Your task to perform on an android device: toggle notifications settings in the gmail app Image 0: 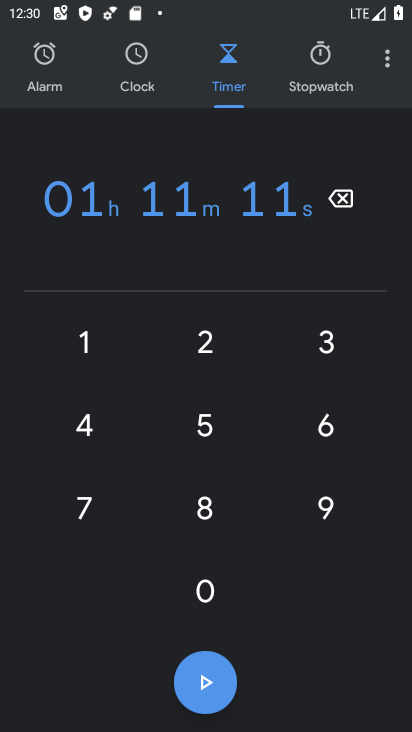
Step 0: press home button
Your task to perform on an android device: toggle notifications settings in the gmail app Image 1: 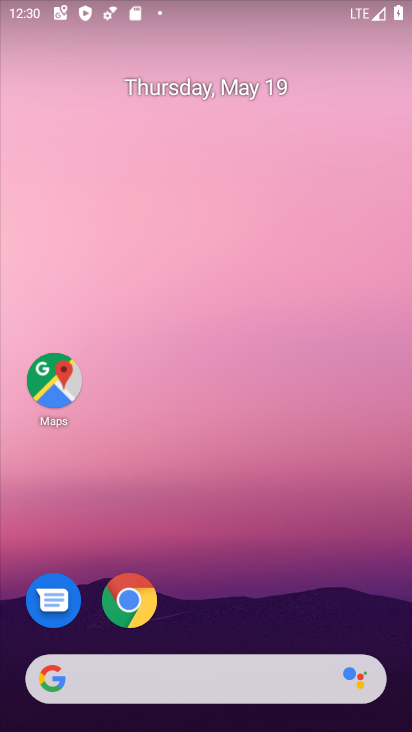
Step 1: drag from (228, 542) to (249, 64)
Your task to perform on an android device: toggle notifications settings in the gmail app Image 2: 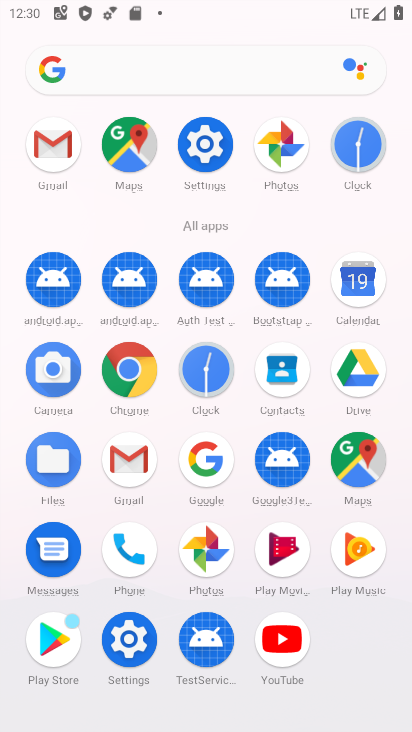
Step 2: click (126, 456)
Your task to perform on an android device: toggle notifications settings in the gmail app Image 3: 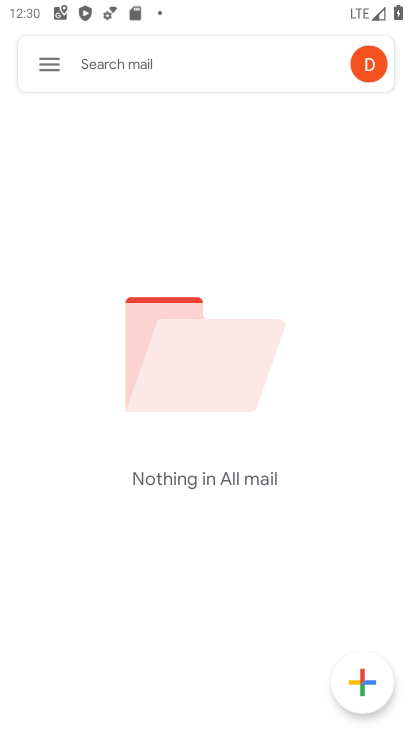
Step 3: click (46, 51)
Your task to perform on an android device: toggle notifications settings in the gmail app Image 4: 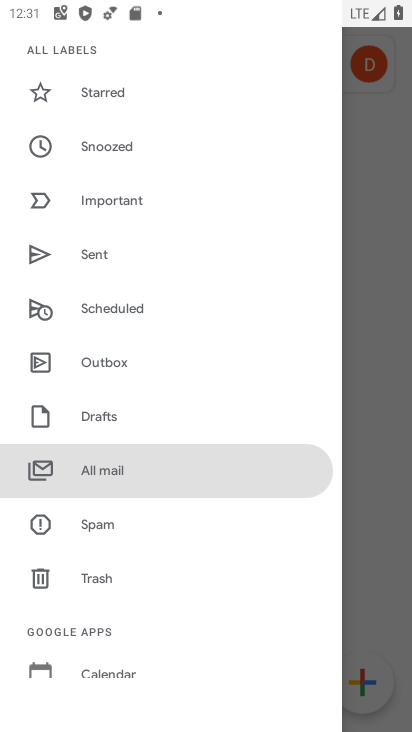
Step 4: drag from (214, 568) to (156, 64)
Your task to perform on an android device: toggle notifications settings in the gmail app Image 5: 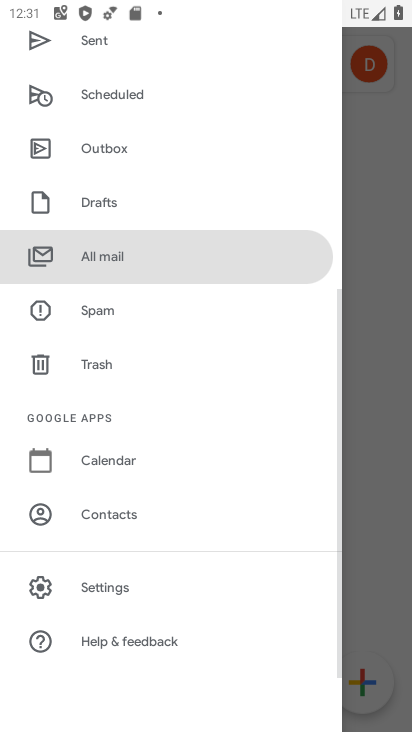
Step 5: click (117, 582)
Your task to perform on an android device: toggle notifications settings in the gmail app Image 6: 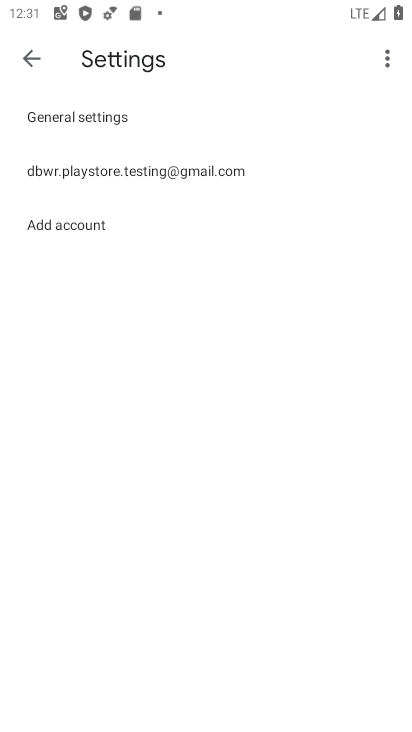
Step 6: click (95, 121)
Your task to perform on an android device: toggle notifications settings in the gmail app Image 7: 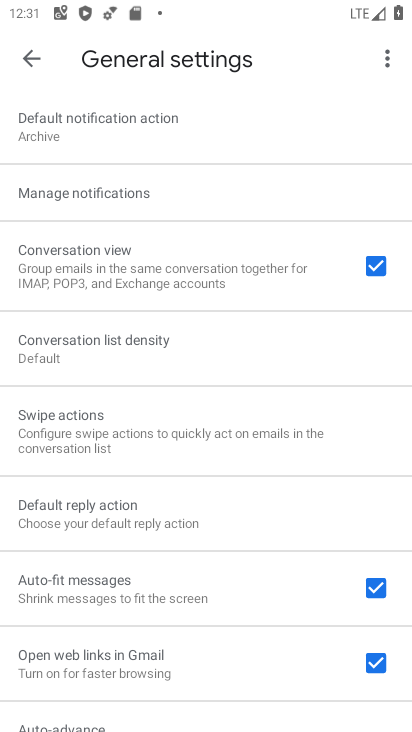
Step 7: click (109, 191)
Your task to perform on an android device: toggle notifications settings in the gmail app Image 8: 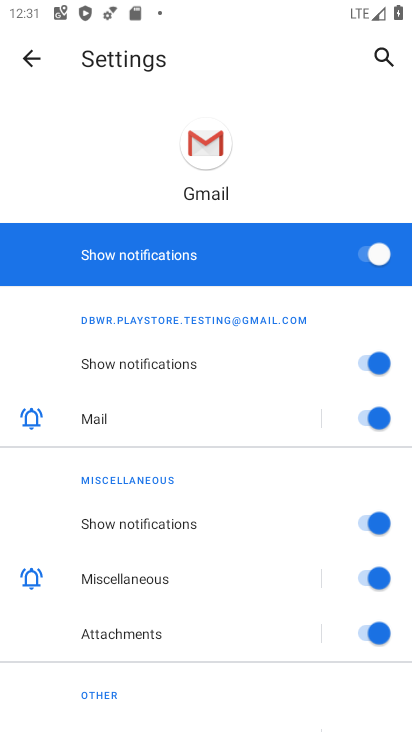
Step 8: click (372, 253)
Your task to perform on an android device: toggle notifications settings in the gmail app Image 9: 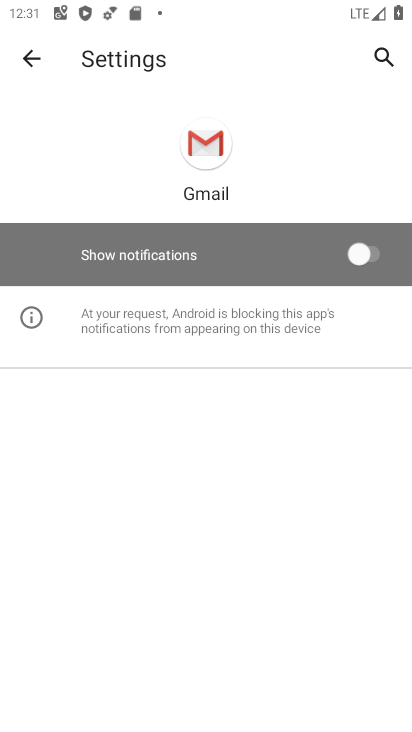
Step 9: task complete